Your task to perform on an android device: What is the news today? Image 0: 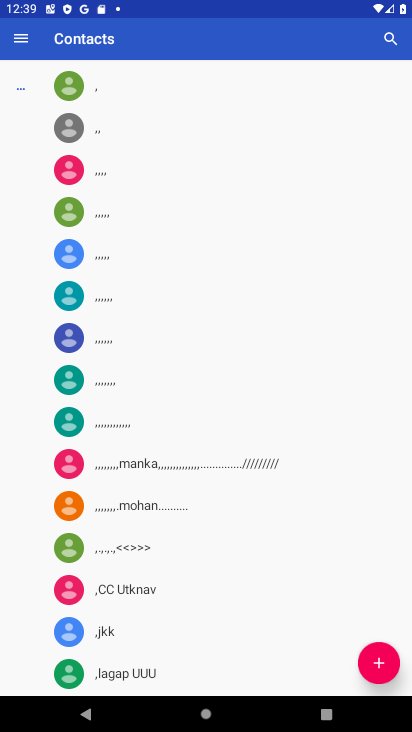
Step 0: press home button
Your task to perform on an android device: What is the news today? Image 1: 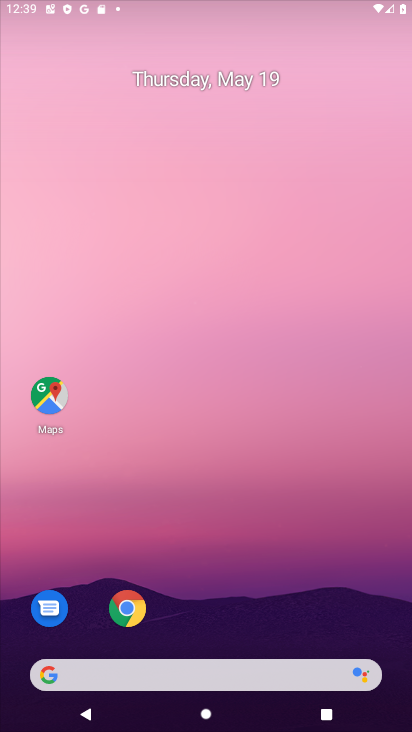
Step 1: drag from (209, 608) to (269, 236)
Your task to perform on an android device: What is the news today? Image 2: 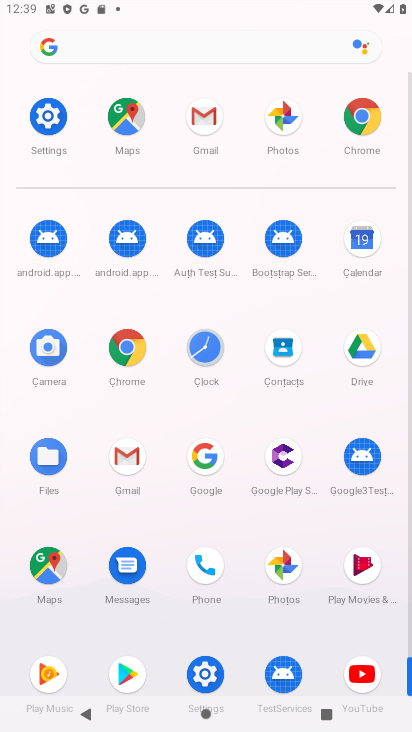
Step 2: click (123, 335)
Your task to perform on an android device: What is the news today? Image 3: 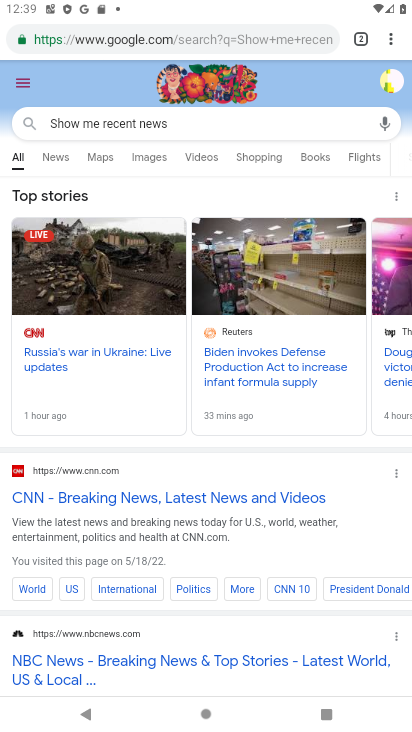
Step 3: click (403, 32)
Your task to perform on an android device: What is the news today? Image 4: 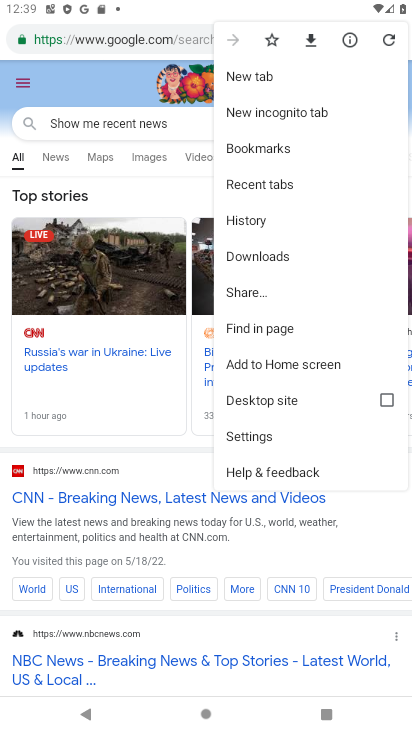
Step 4: click (281, 72)
Your task to perform on an android device: What is the news today? Image 5: 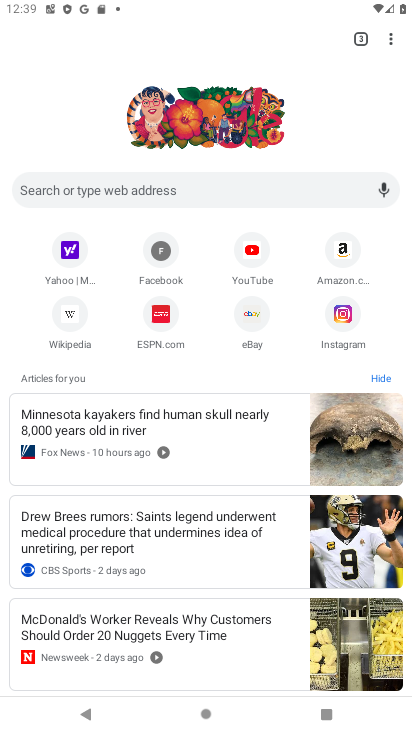
Step 5: click (210, 180)
Your task to perform on an android device: What is the news today? Image 6: 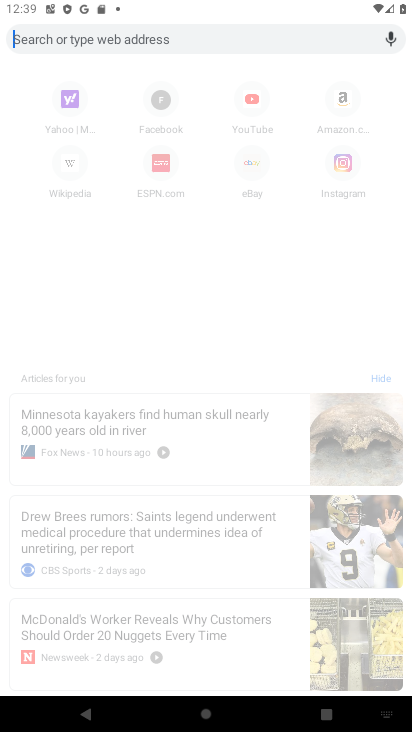
Step 6: type "What is the news today?"
Your task to perform on an android device: What is the news today? Image 7: 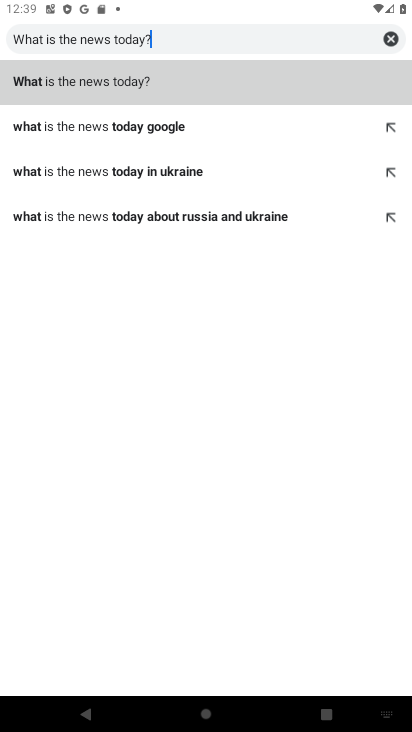
Step 7: click (116, 85)
Your task to perform on an android device: What is the news today? Image 8: 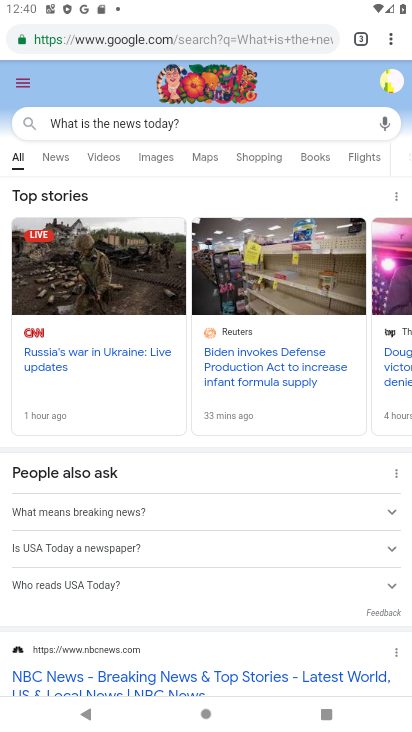
Step 8: task complete